Your task to perform on an android device: Open Google Chrome and click the shortcut for Amazon.com Image 0: 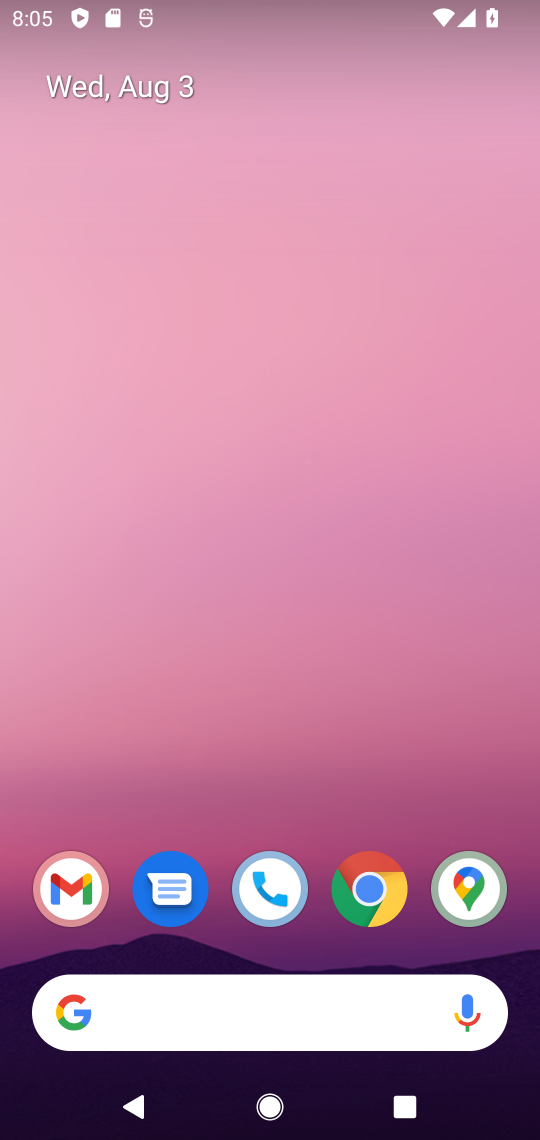
Step 0: click (364, 874)
Your task to perform on an android device: Open Google Chrome and click the shortcut for Amazon.com Image 1: 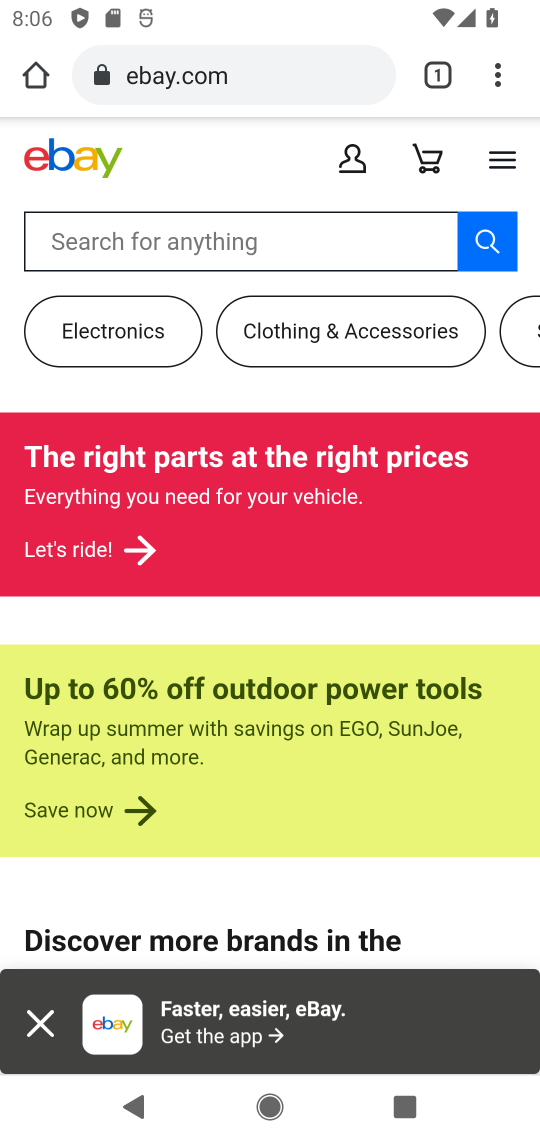
Step 1: click (321, 79)
Your task to perform on an android device: Open Google Chrome and click the shortcut for Amazon.com Image 2: 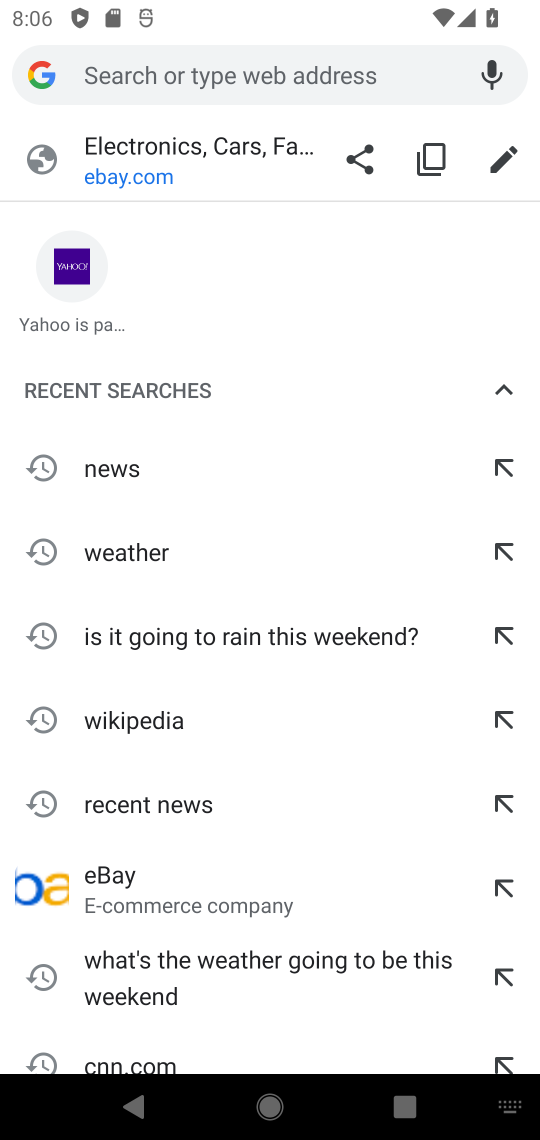
Step 2: type "amazon.com"
Your task to perform on an android device: Open Google Chrome and click the shortcut for Amazon.com Image 3: 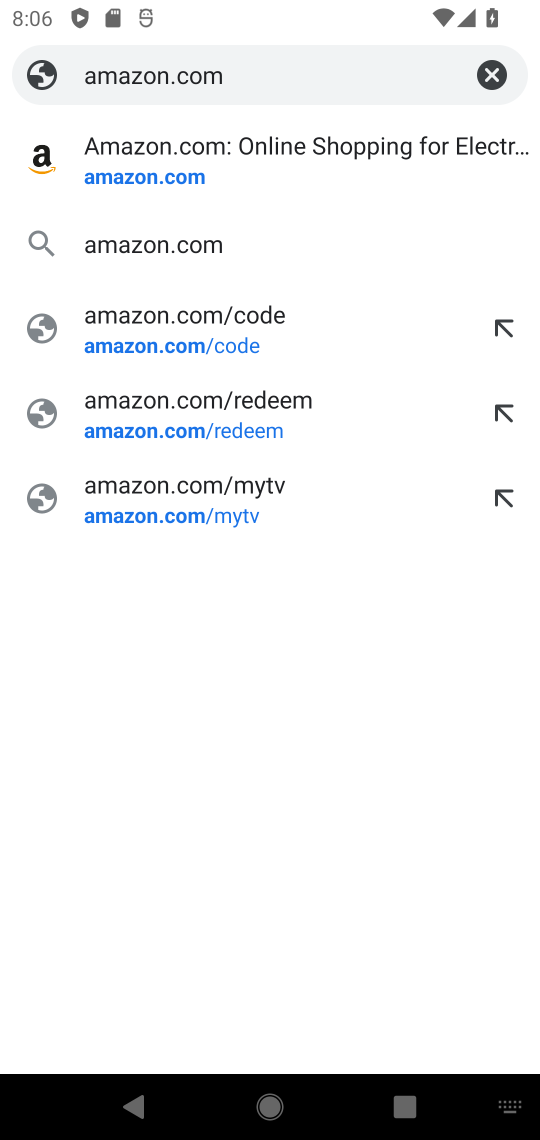
Step 3: click (290, 146)
Your task to perform on an android device: Open Google Chrome and click the shortcut for Amazon.com Image 4: 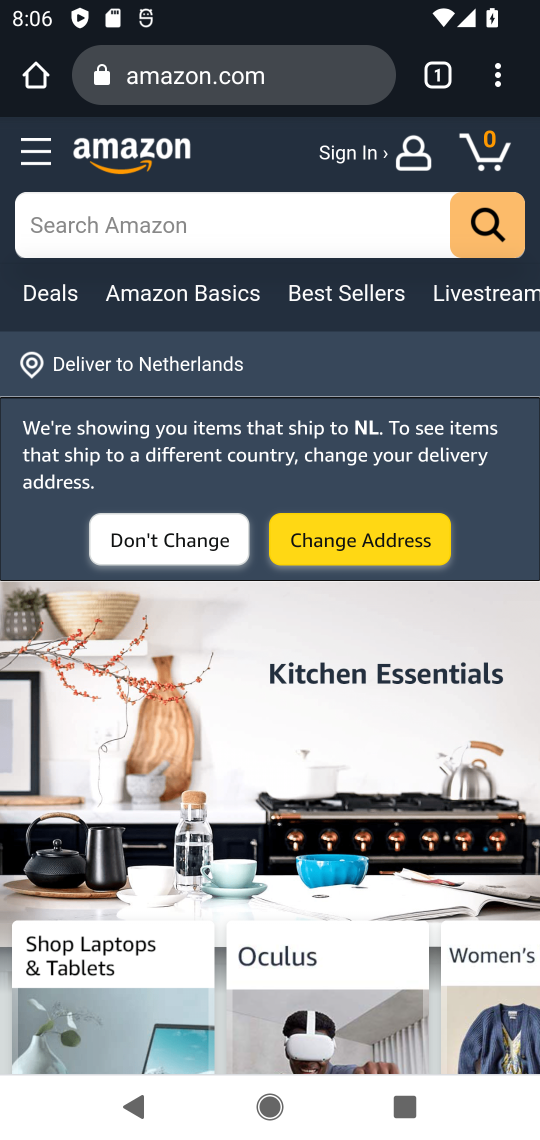
Step 4: task complete